Your task to perform on an android device: Go to settings Image 0: 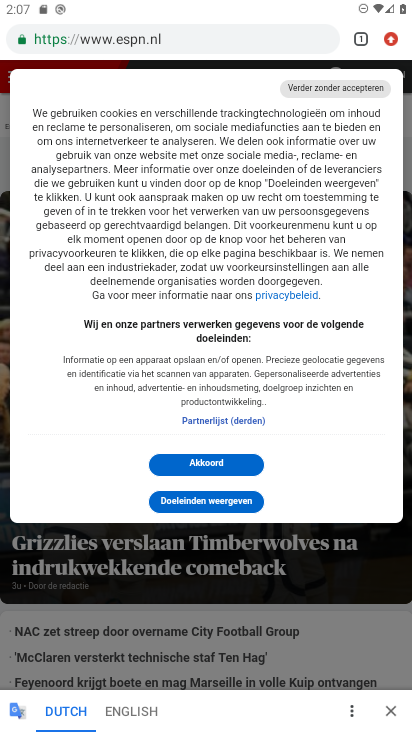
Step 0: click (399, 37)
Your task to perform on an android device: Go to settings Image 1: 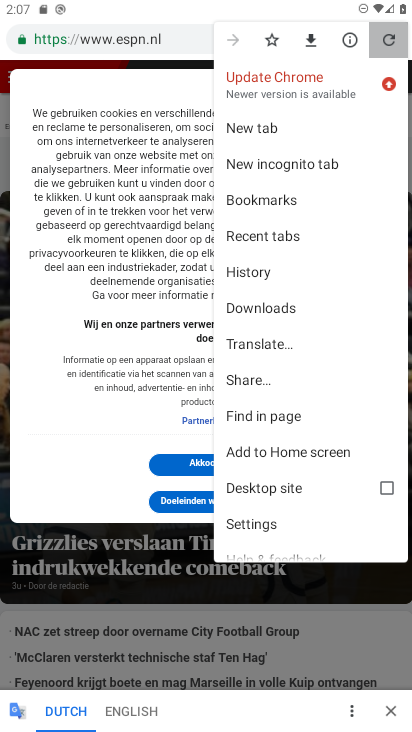
Step 1: press home button
Your task to perform on an android device: Go to settings Image 2: 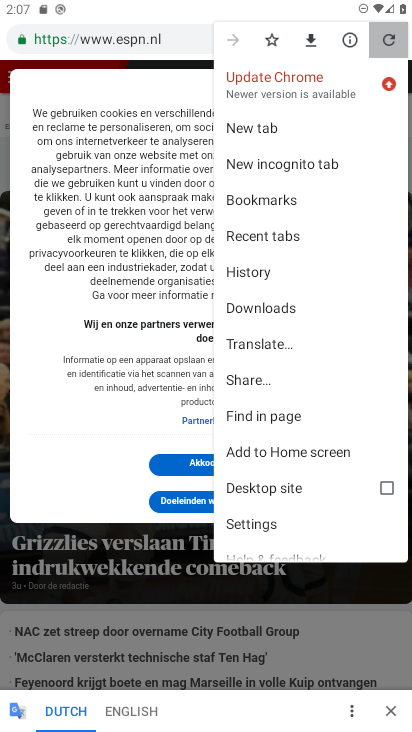
Step 2: click (383, 337)
Your task to perform on an android device: Go to settings Image 3: 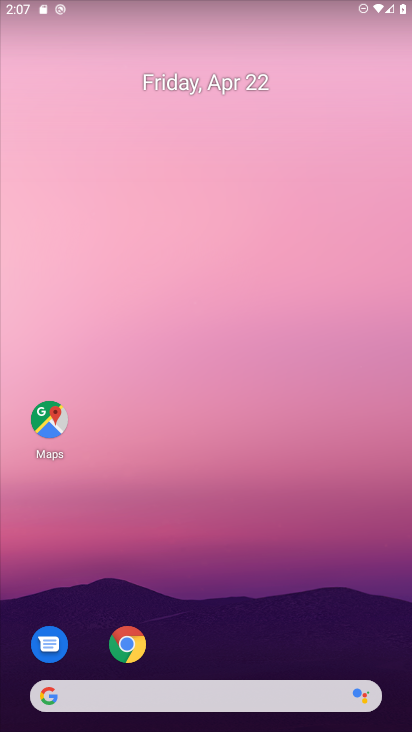
Step 3: drag from (243, 350) to (255, 107)
Your task to perform on an android device: Go to settings Image 4: 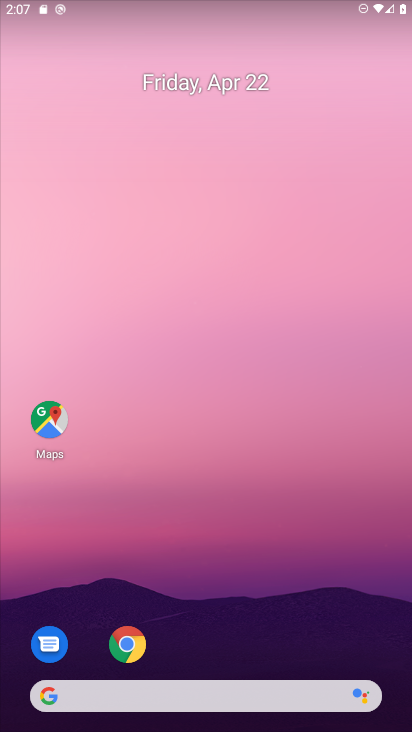
Step 4: drag from (209, 454) to (213, 160)
Your task to perform on an android device: Go to settings Image 5: 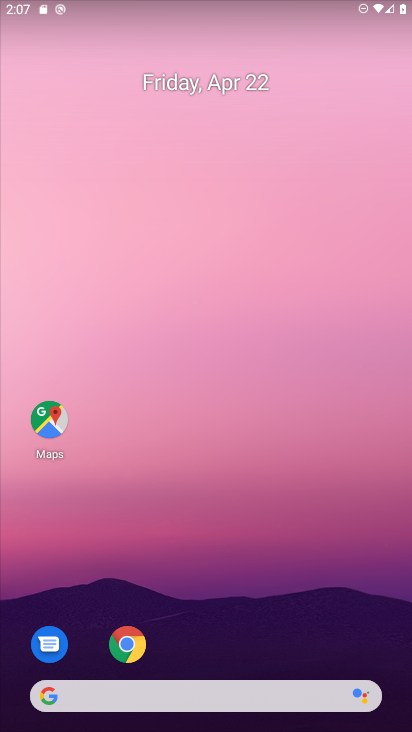
Step 5: drag from (319, 609) to (237, 33)
Your task to perform on an android device: Go to settings Image 6: 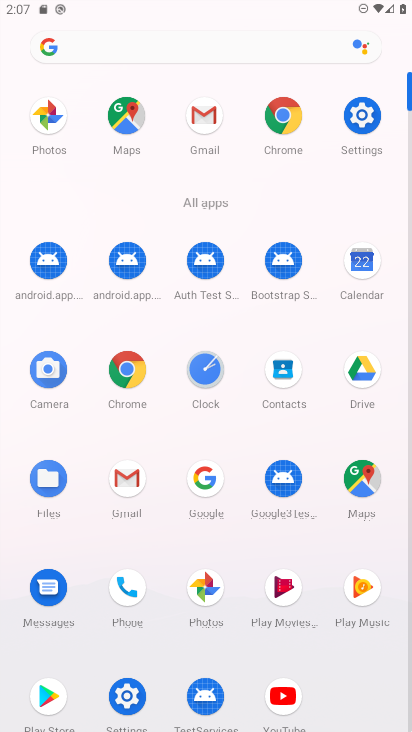
Step 6: click (359, 118)
Your task to perform on an android device: Go to settings Image 7: 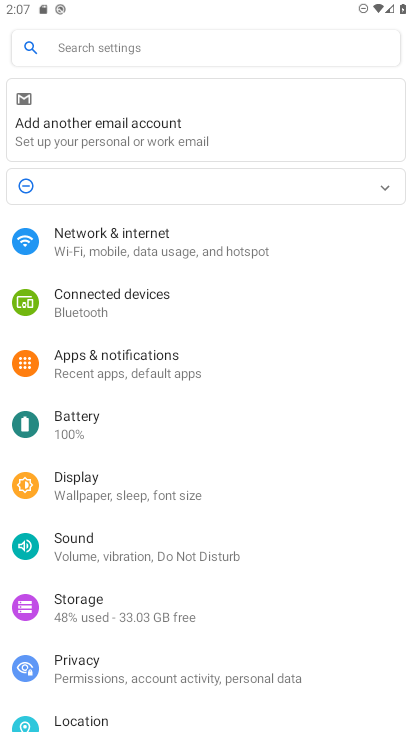
Step 7: task complete